Your task to perform on an android device: Open calendar and show me the third week of next month Image 0: 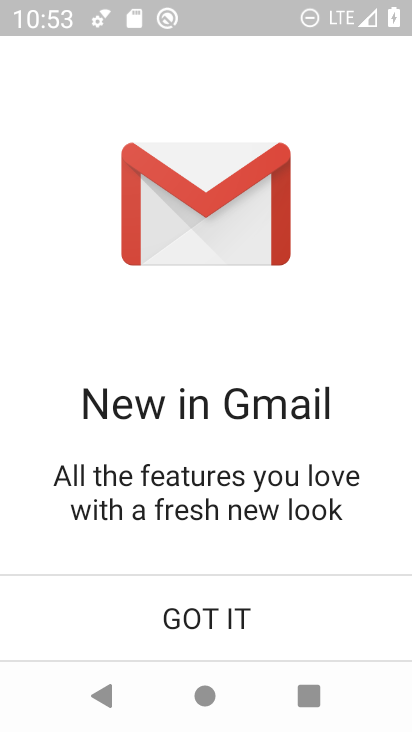
Step 0: press home button
Your task to perform on an android device: Open calendar and show me the third week of next month Image 1: 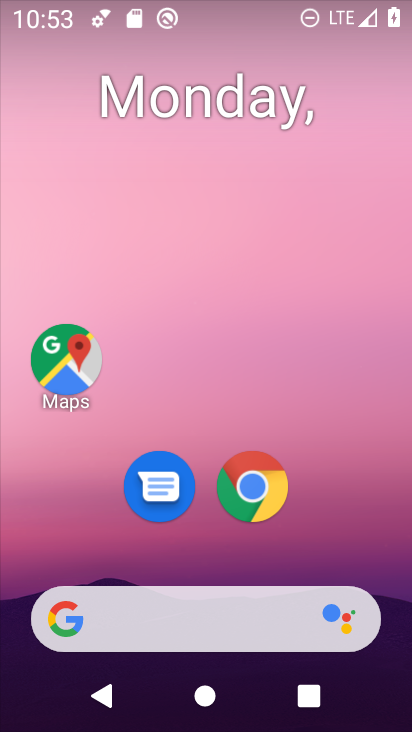
Step 1: drag from (44, 561) to (238, 177)
Your task to perform on an android device: Open calendar and show me the third week of next month Image 2: 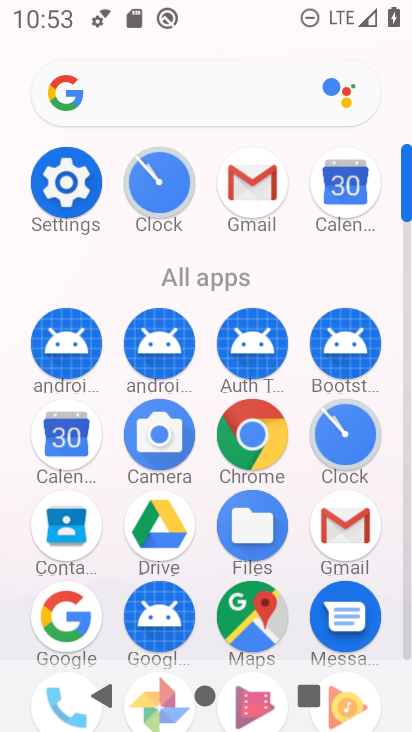
Step 2: click (61, 445)
Your task to perform on an android device: Open calendar and show me the third week of next month Image 3: 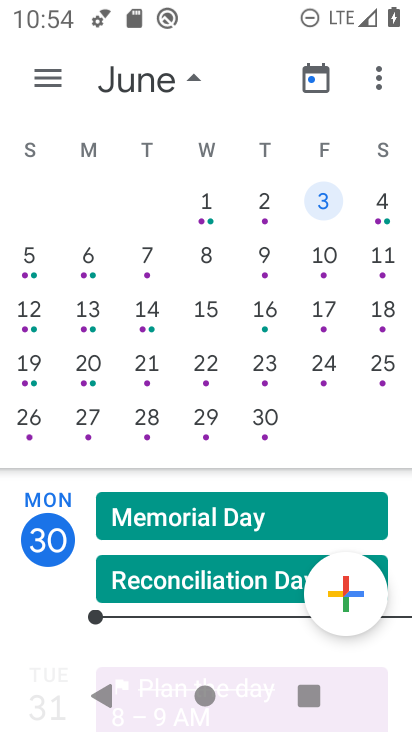
Step 3: click (71, 310)
Your task to perform on an android device: Open calendar and show me the third week of next month Image 4: 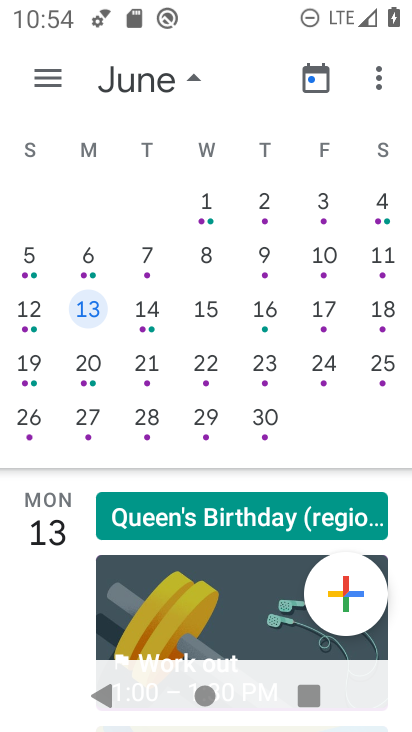
Step 4: click (141, 304)
Your task to perform on an android device: Open calendar and show me the third week of next month Image 5: 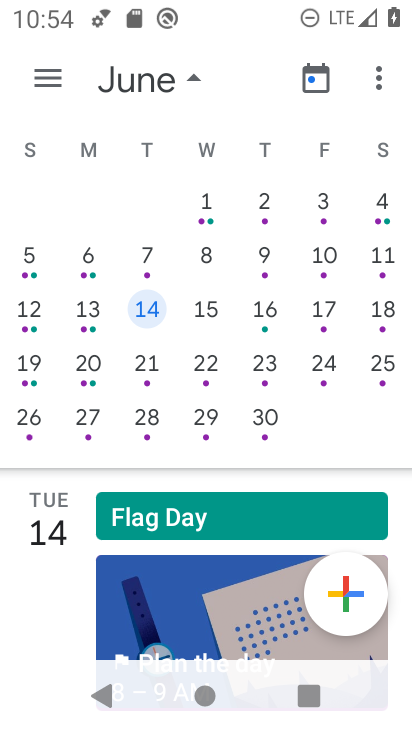
Step 5: click (201, 306)
Your task to perform on an android device: Open calendar and show me the third week of next month Image 6: 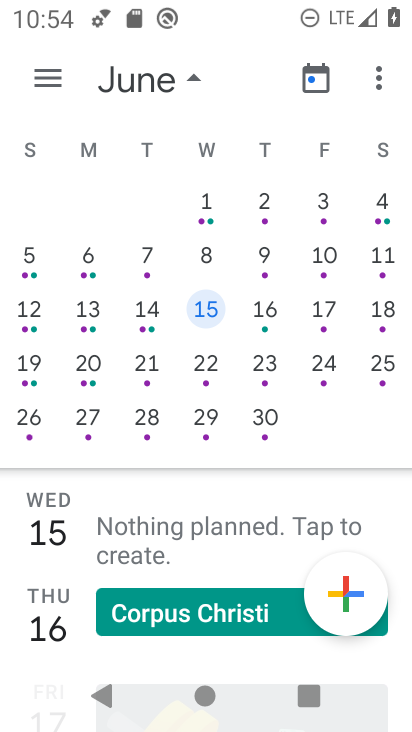
Step 6: click (258, 305)
Your task to perform on an android device: Open calendar and show me the third week of next month Image 7: 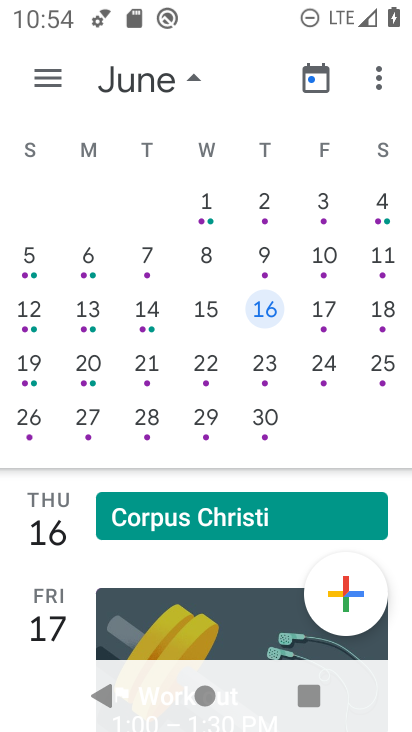
Step 7: task complete